Your task to perform on an android device: turn off priority inbox in the gmail app Image 0: 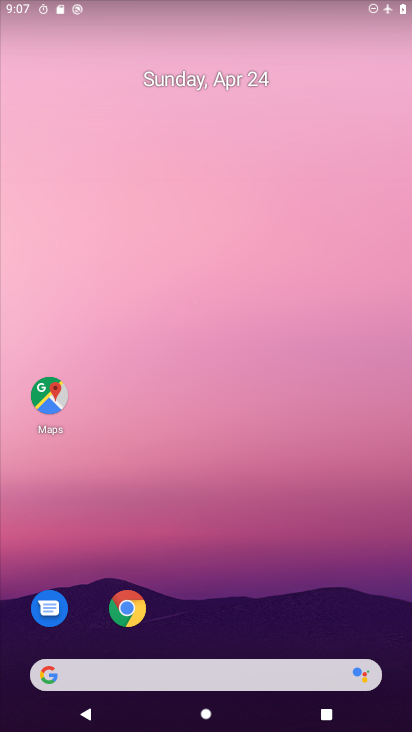
Step 0: drag from (291, 575) to (254, 20)
Your task to perform on an android device: turn off priority inbox in the gmail app Image 1: 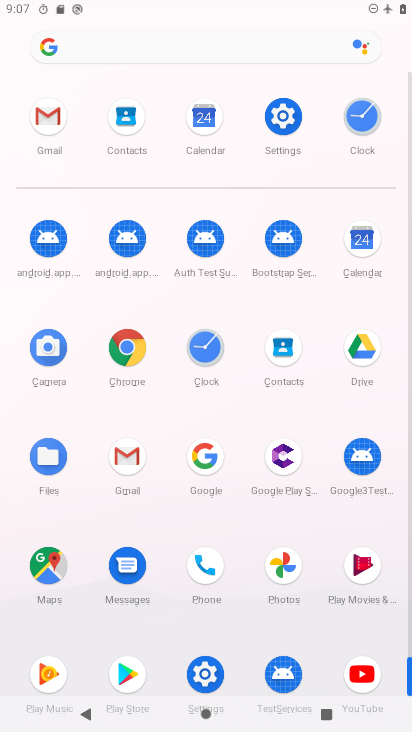
Step 1: click (46, 105)
Your task to perform on an android device: turn off priority inbox in the gmail app Image 2: 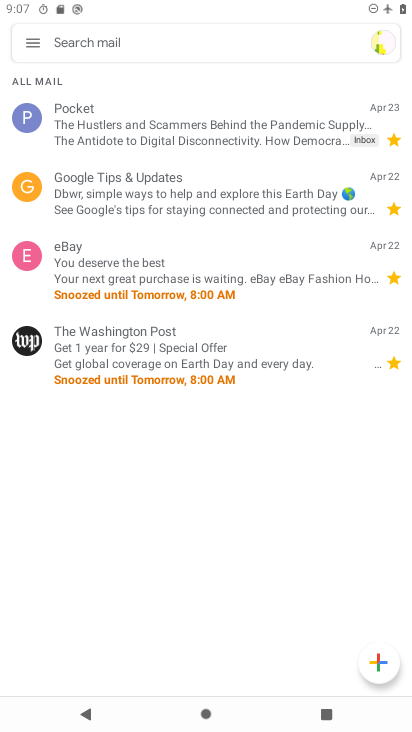
Step 2: click (35, 39)
Your task to perform on an android device: turn off priority inbox in the gmail app Image 3: 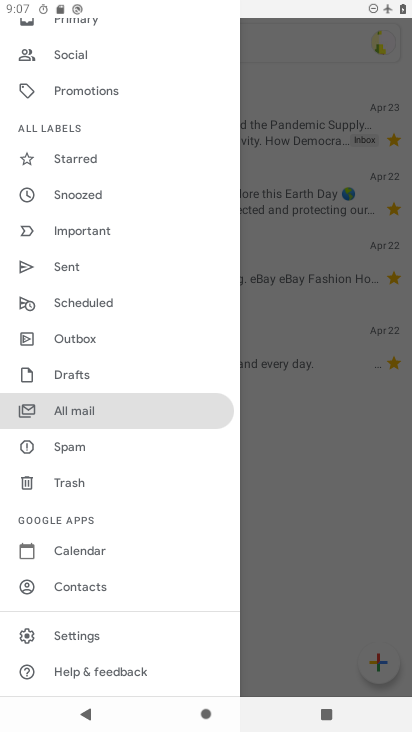
Step 3: click (79, 626)
Your task to perform on an android device: turn off priority inbox in the gmail app Image 4: 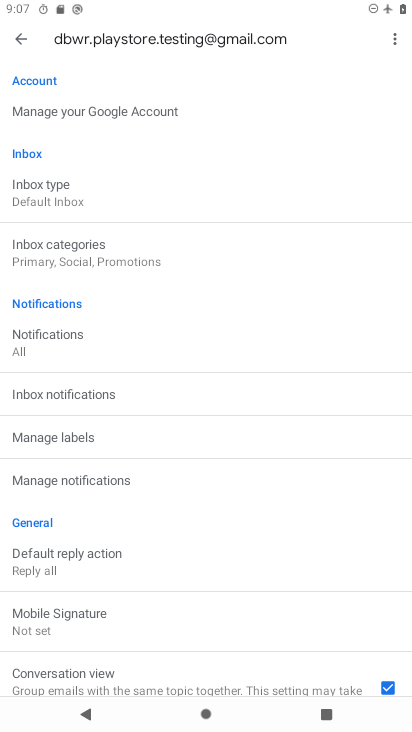
Step 4: click (55, 197)
Your task to perform on an android device: turn off priority inbox in the gmail app Image 5: 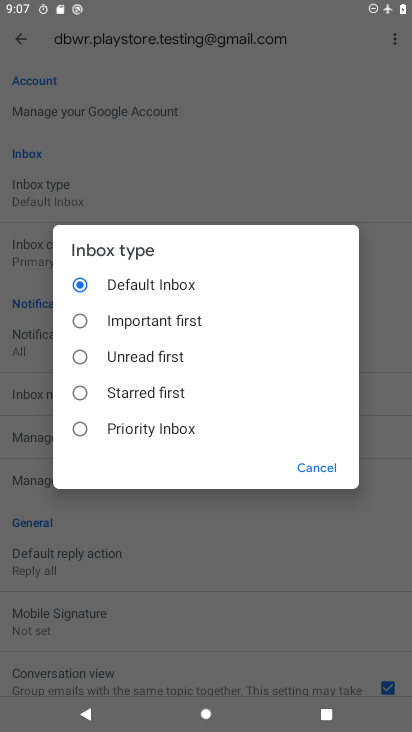
Step 5: click (315, 463)
Your task to perform on an android device: turn off priority inbox in the gmail app Image 6: 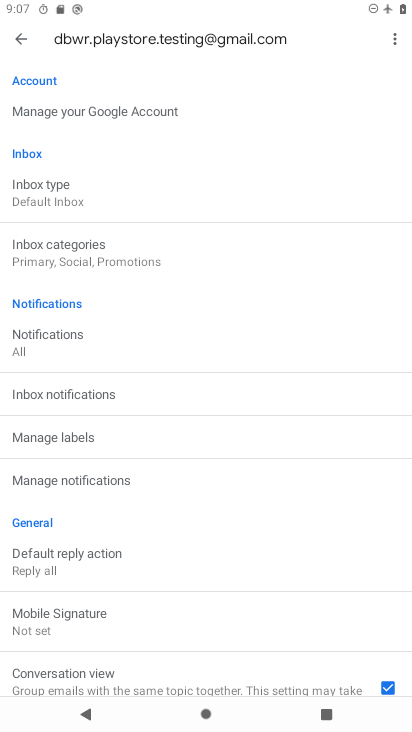
Step 6: task complete